Your task to perform on an android device: Open privacy settings Image 0: 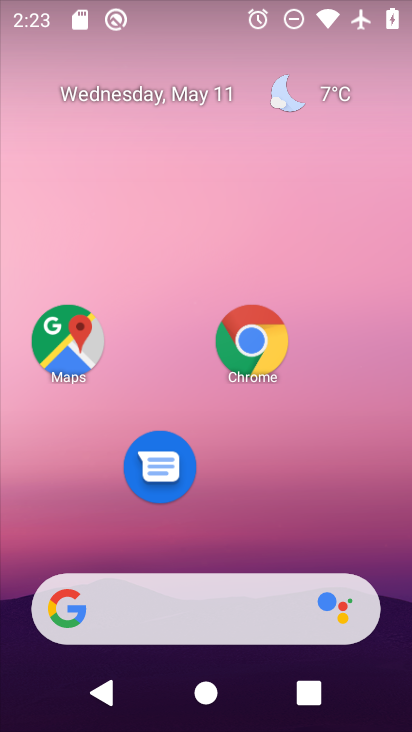
Step 0: press home button
Your task to perform on an android device: Open privacy settings Image 1: 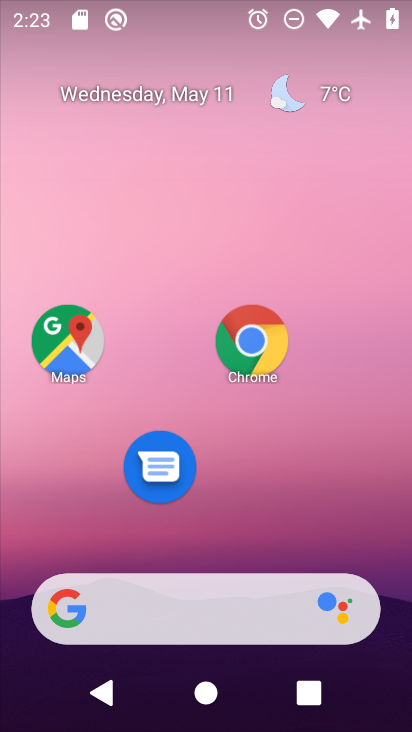
Step 1: drag from (139, 625) to (307, 122)
Your task to perform on an android device: Open privacy settings Image 2: 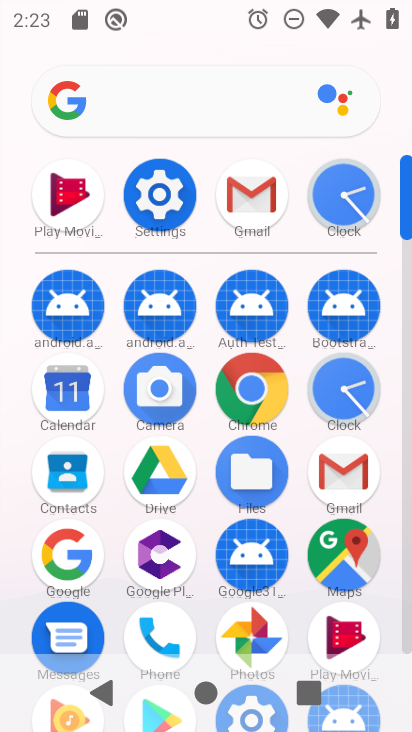
Step 2: click (164, 203)
Your task to perform on an android device: Open privacy settings Image 3: 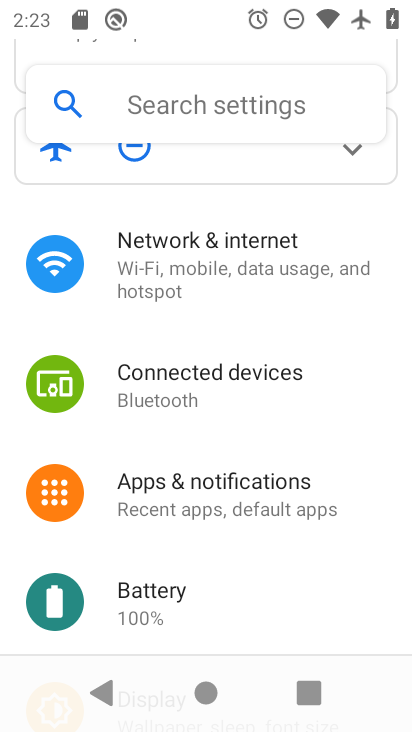
Step 3: drag from (179, 573) to (347, 238)
Your task to perform on an android device: Open privacy settings Image 4: 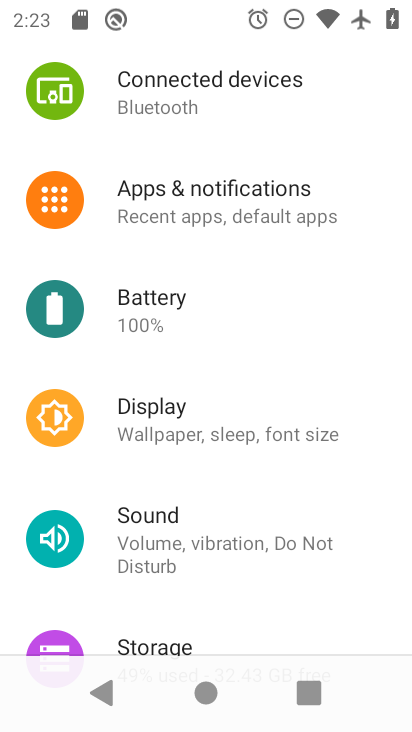
Step 4: drag from (163, 605) to (312, 204)
Your task to perform on an android device: Open privacy settings Image 5: 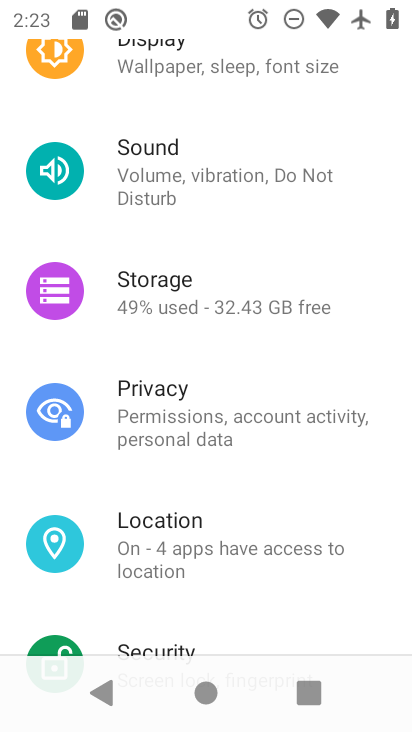
Step 5: click (173, 400)
Your task to perform on an android device: Open privacy settings Image 6: 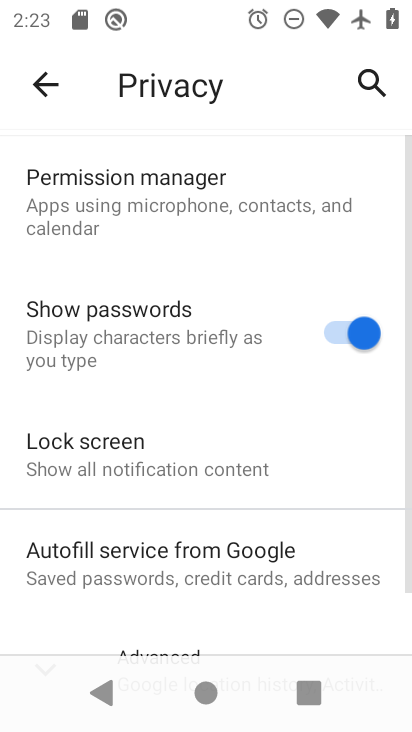
Step 6: task complete